Your task to perform on an android device: Open the web browser Image 0: 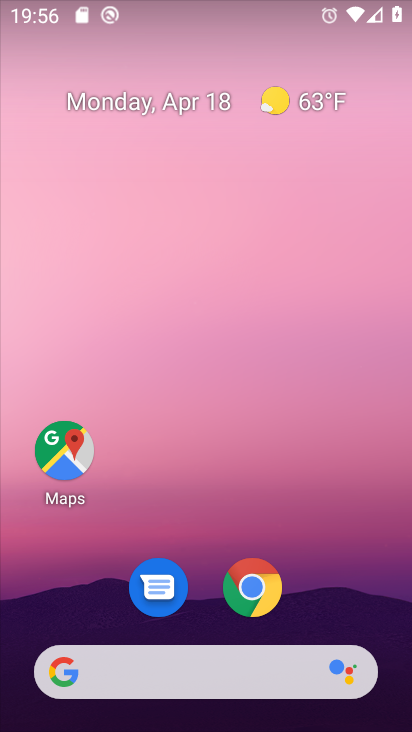
Step 0: click (252, 609)
Your task to perform on an android device: Open the web browser Image 1: 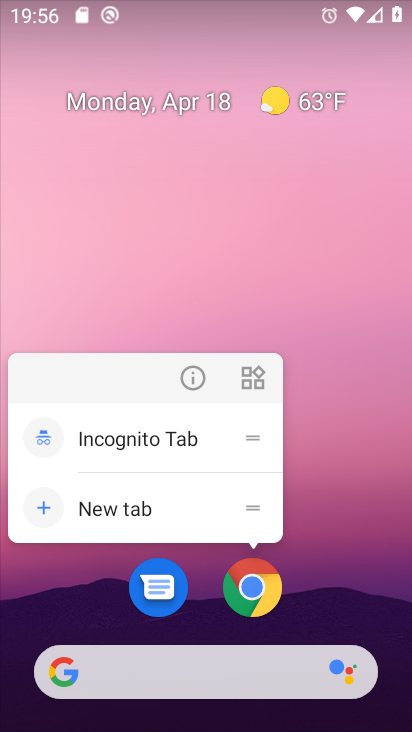
Step 1: click (248, 590)
Your task to perform on an android device: Open the web browser Image 2: 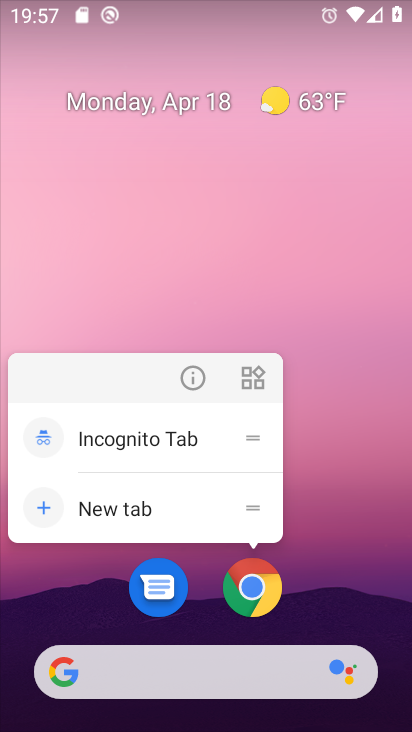
Step 2: click (262, 603)
Your task to perform on an android device: Open the web browser Image 3: 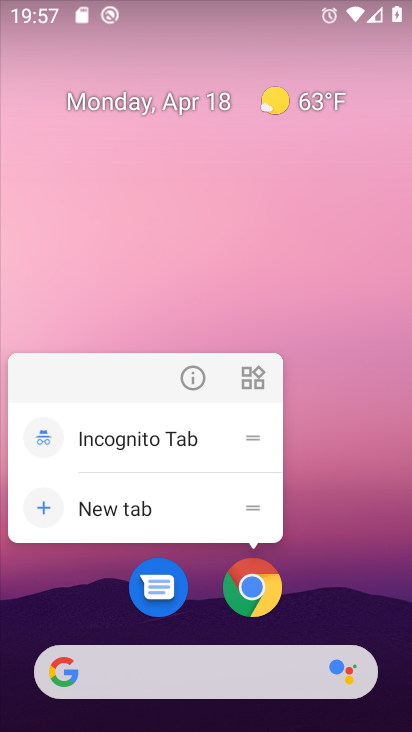
Step 3: click (262, 603)
Your task to perform on an android device: Open the web browser Image 4: 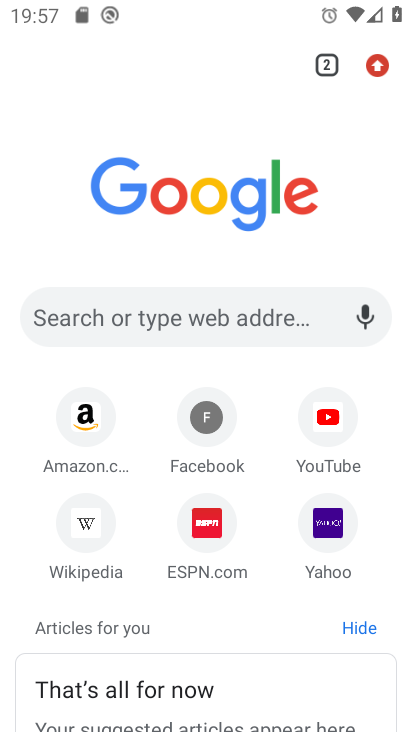
Step 4: task complete